Your task to perform on an android device: Search for seafood restaurants on Google Maps Image 0: 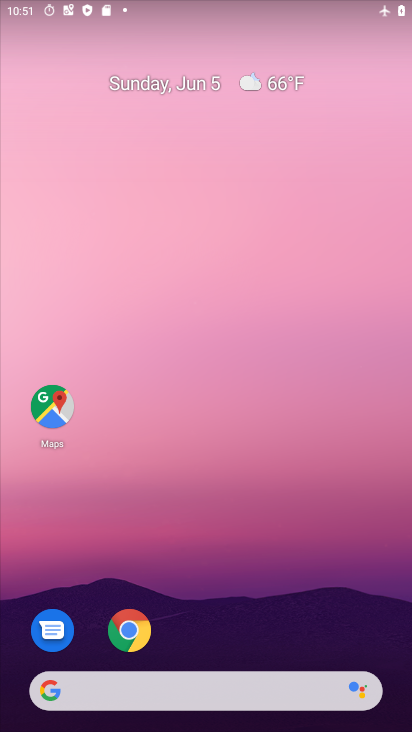
Step 0: drag from (202, 314) to (202, 92)
Your task to perform on an android device: Search for seafood restaurants on Google Maps Image 1: 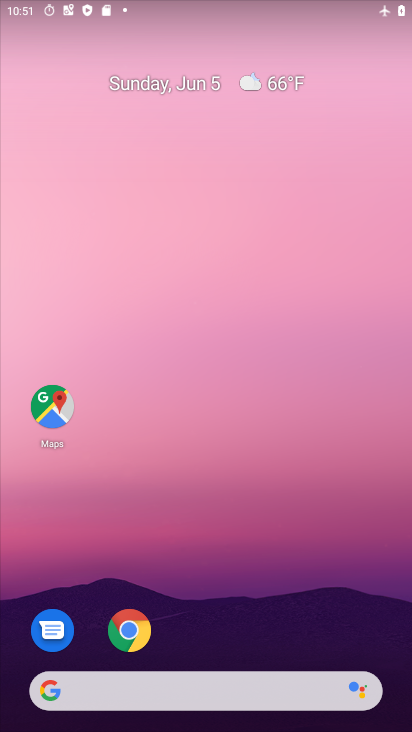
Step 1: drag from (244, 729) to (255, 49)
Your task to perform on an android device: Search for seafood restaurants on Google Maps Image 2: 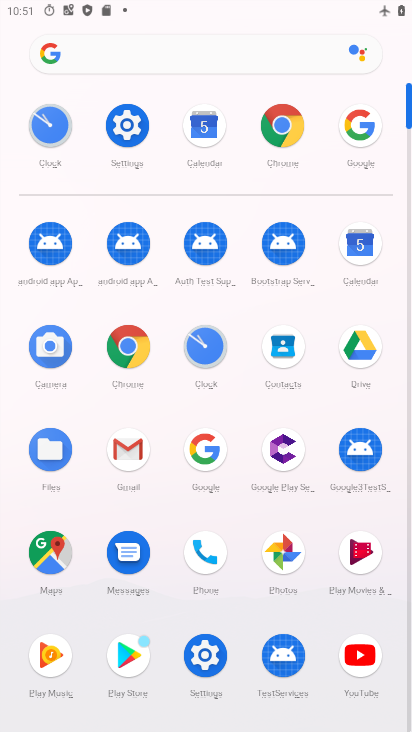
Step 2: click (54, 550)
Your task to perform on an android device: Search for seafood restaurants on Google Maps Image 3: 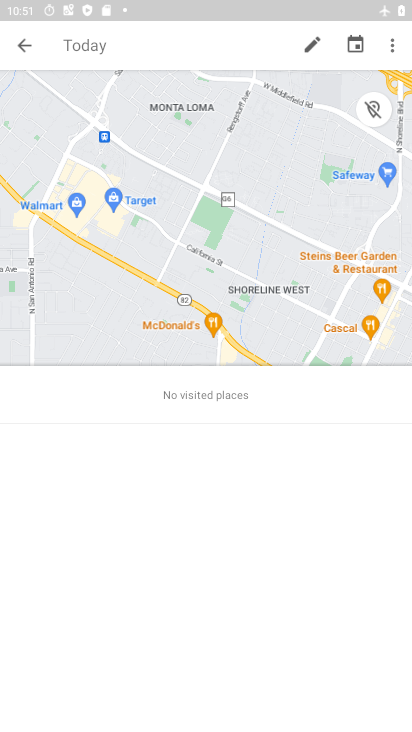
Step 3: click (23, 42)
Your task to perform on an android device: Search for seafood restaurants on Google Maps Image 4: 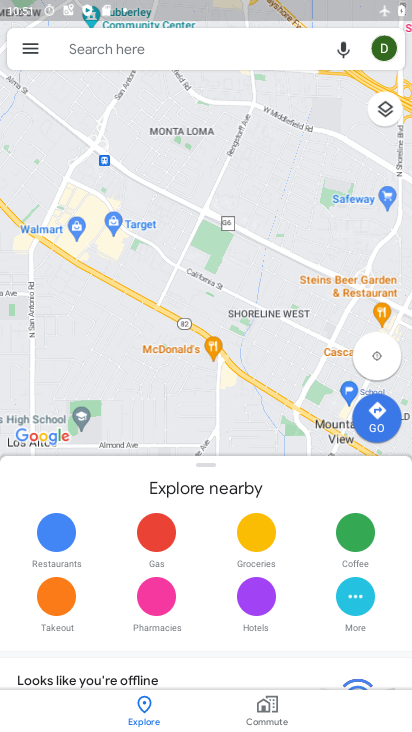
Step 4: click (169, 47)
Your task to perform on an android device: Search for seafood restaurants on Google Maps Image 5: 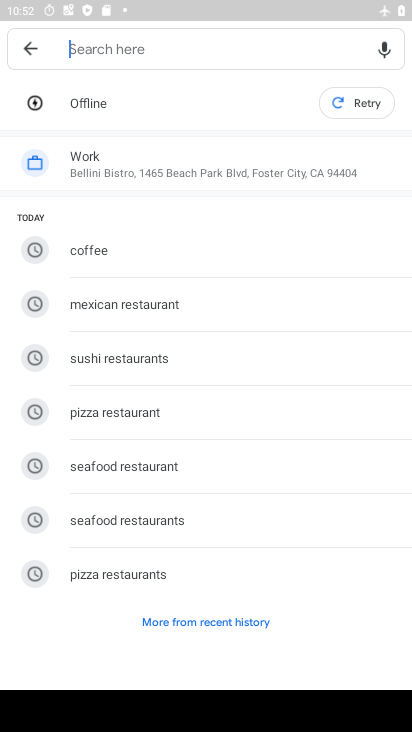
Step 5: type "seafood restaurants"
Your task to perform on an android device: Search for seafood restaurants on Google Maps Image 6: 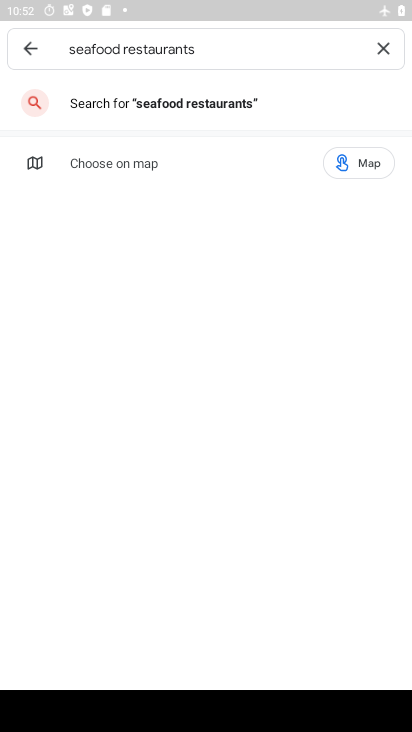
Step 6: click (185, 100)
Your task to perform on an android device: Search for seafood restaurants on Google Maps Image 7: 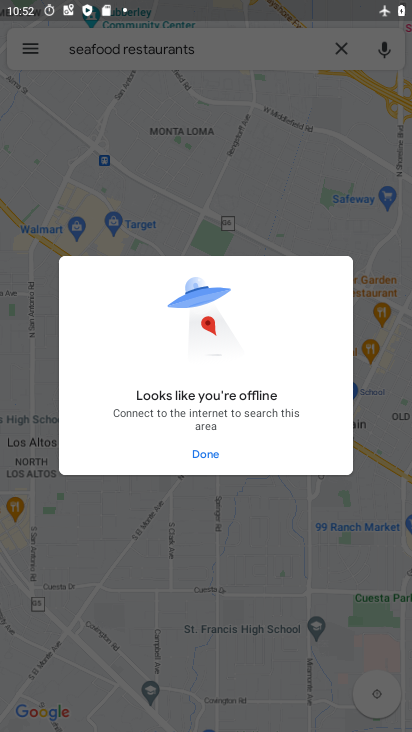
Step 7: task complete